Your task to perform on an android device: Go to calendar. Show me events next week Image 0: 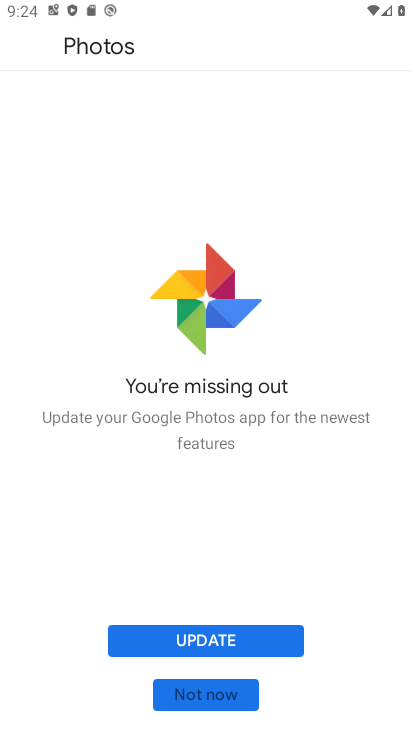
Step 0: press home button
Your task to perform on an android device: Go to calendar. Show me events next week Image 1: 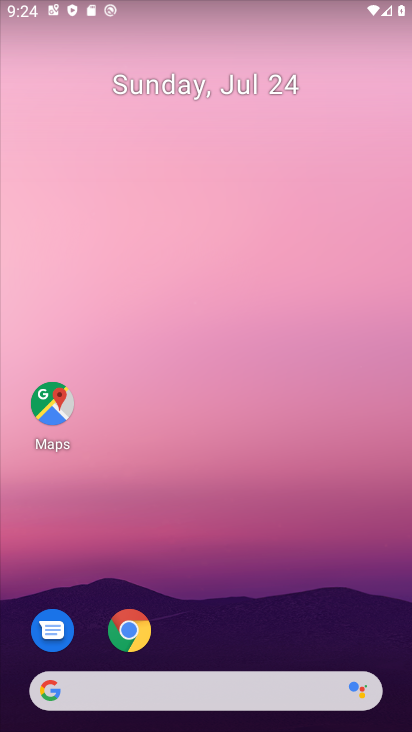
Step 1: drag from (234, 612) to (233, 88)
Your task to perform on an android device: Go to calendar. Show me events next week Image 2: 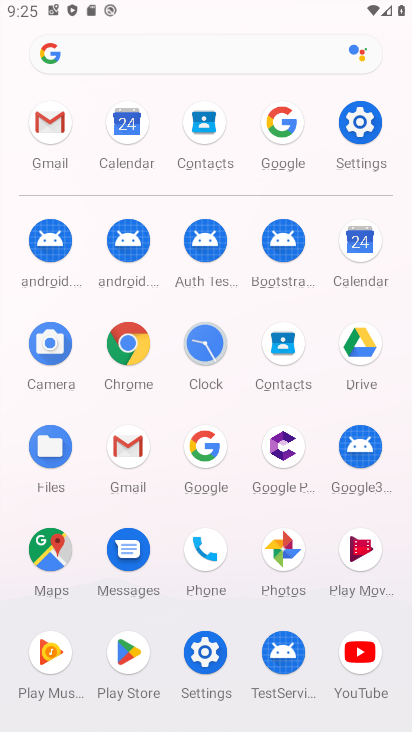
Step 2: click (356, 253)
Your task to perform on an android device: Go to calendar. Show me events next week Image 3: 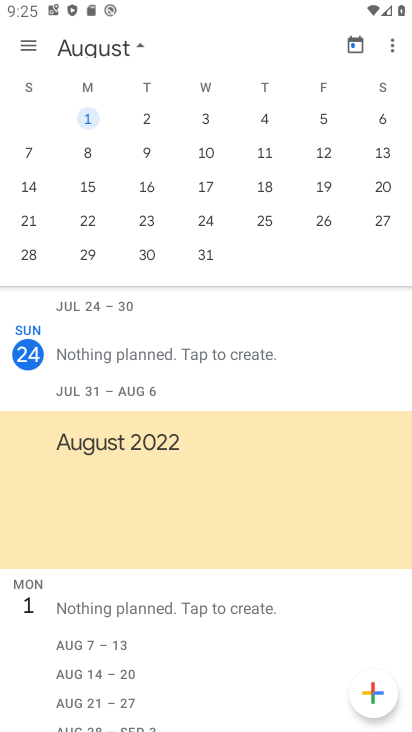
Step 3: drag from (55, 135) to (337, 135)
Your task to perform on an android device: Go to calendar. Show me events next week Image 4: 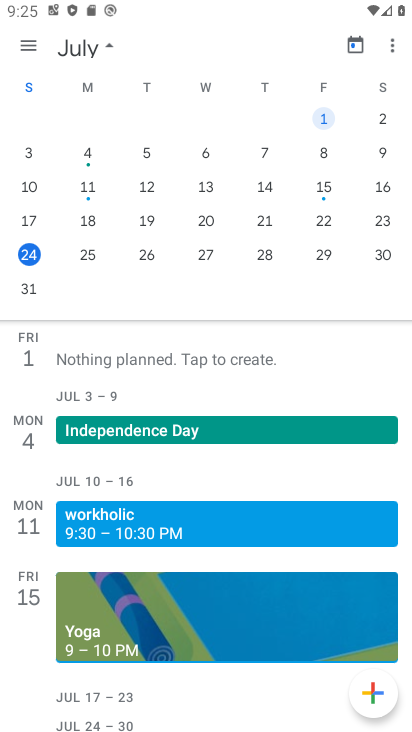
Step 4: click (50, 187)
Your task to perform on an android device: Go to calendar. Show me events next week Image 5: 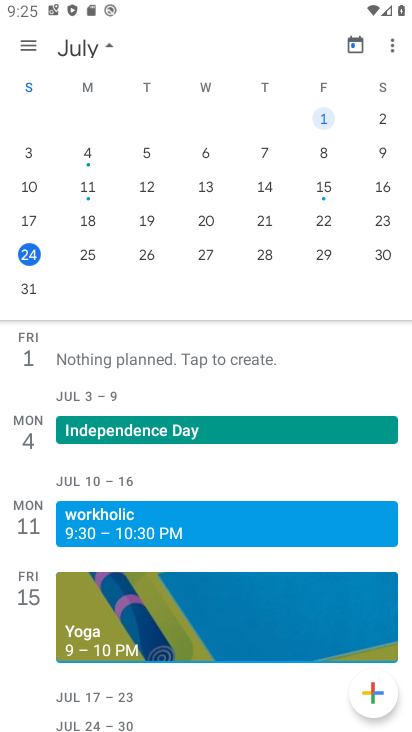
Step 5: click (31, 292)
Your task to perform on an android device: Go to calendar. Show me events next week Image 6: 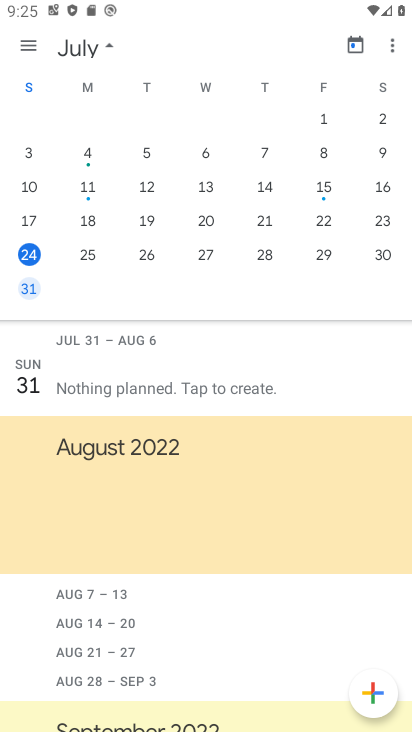
Step 6: task complete